Your task to perform on an android device: change notifications settings Image 0: 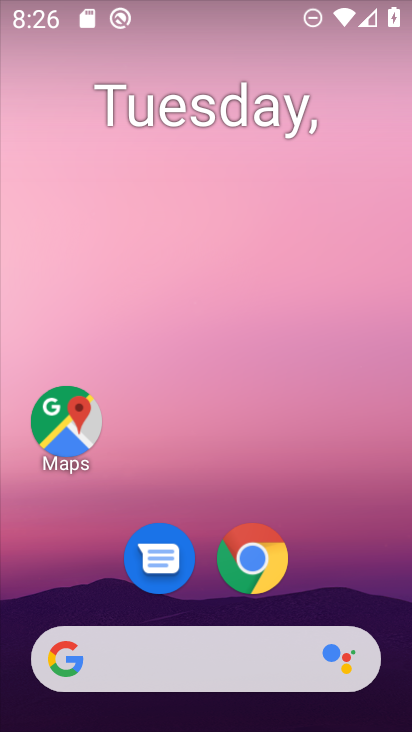
Step 0: drag from (203, 599) to (205, 232)
Your task to perform on an android device: change notifications settings Image 1: 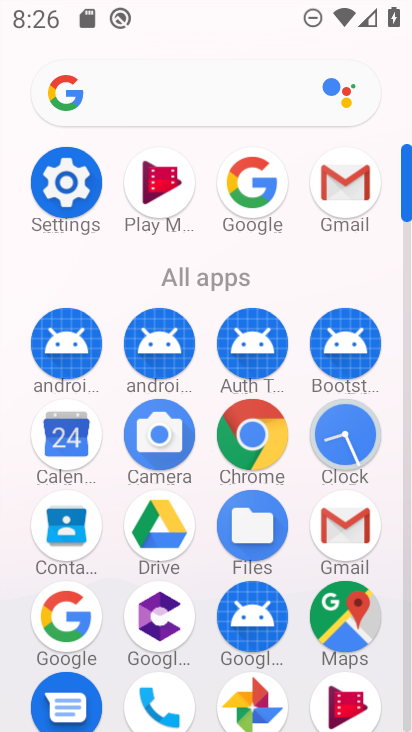
Step 1: click (67, 195)
Your task to perform on an android device: change notifications settings Image 2: 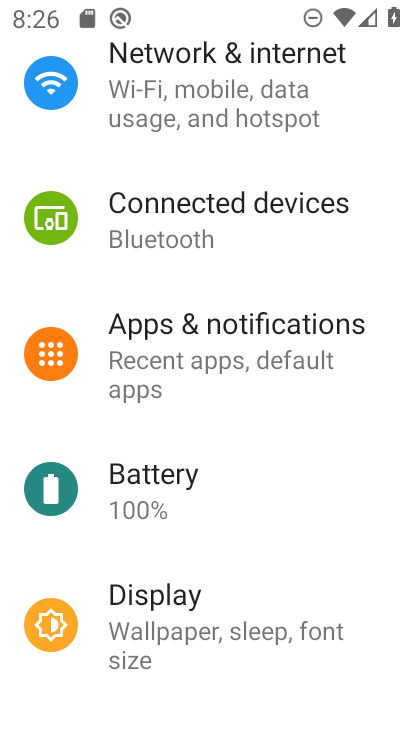
Step 2: click (229, 361)
Your task to perform on an android device: change notifications settings Image 3: 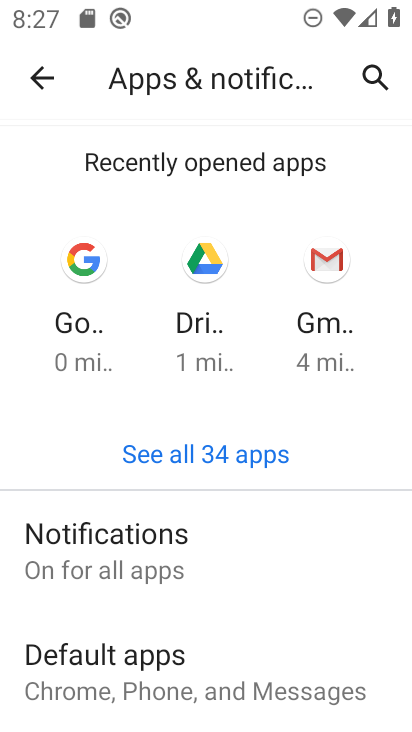
Step 3: drag from (267, 551) to (307, 298)
Your task to perform on an android device: change notifications settings Image 4: 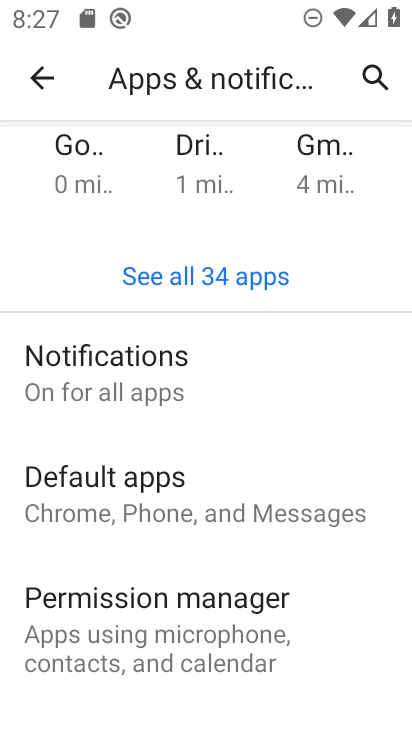
Step 4: click (176, 358)
Your task to perform on an android device: change notifications settings Image 5: 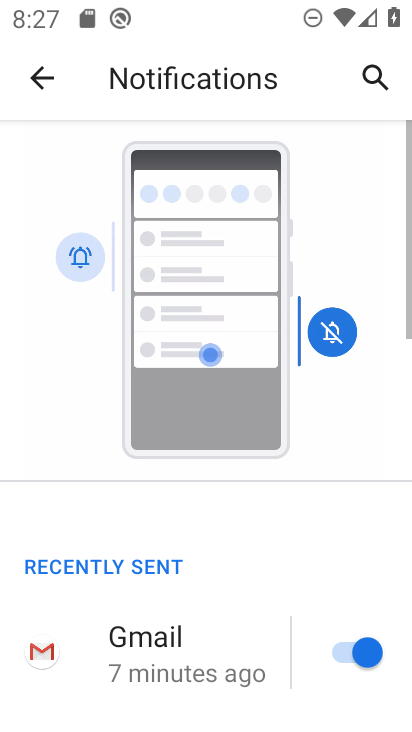
Step 5: drag from (212, 595) to (220, 163)
Your task to perform on an android device: change notifications settings Image 6: 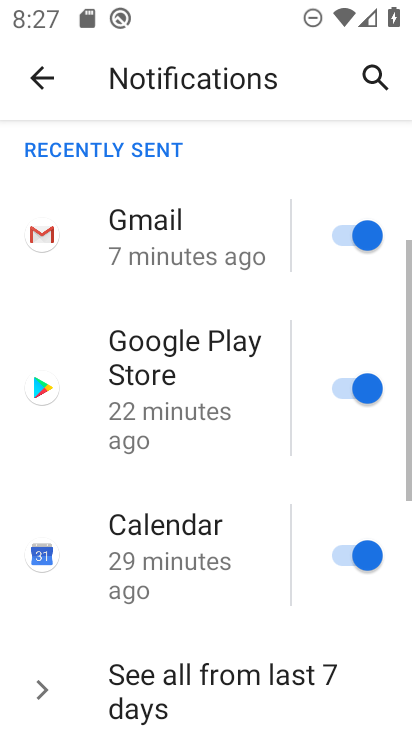
Step 6: drag from (214, 580) to (255, 288)
Your task to perform on an android device: change notifications settings Image 7: 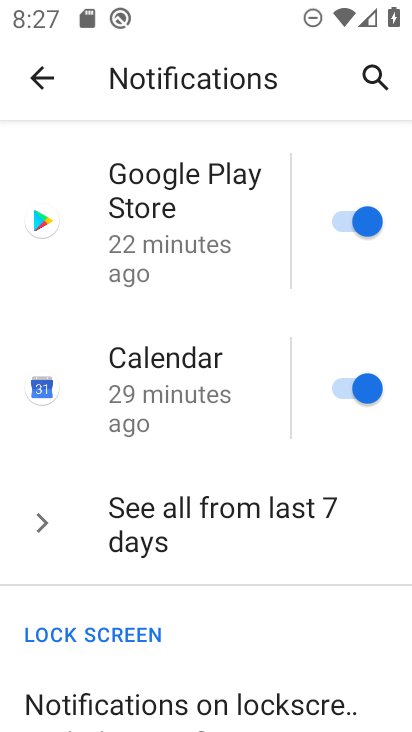
Step 7: drag from (266, 602) to (279, 395)
Your task to perform on an android device: change notifications settings Image 8: 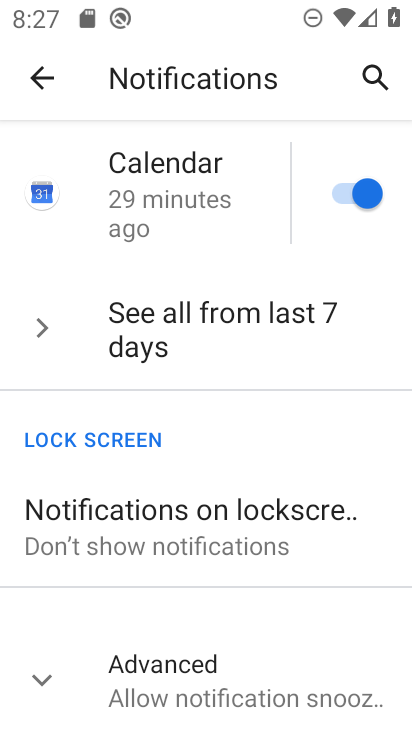
Step 8: drag from (174, 546) to (237, 243)
Your task to perform on an android device: change notifications settings Image 9: 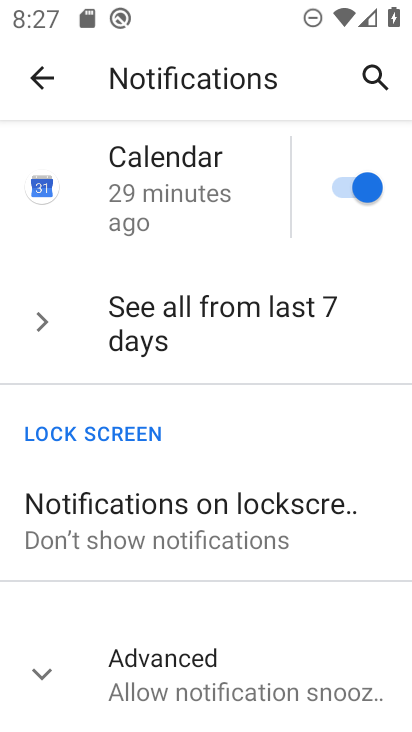
Step 9: click (180, 527)
Your task to perform on an android device: change notifications settings Image 10: 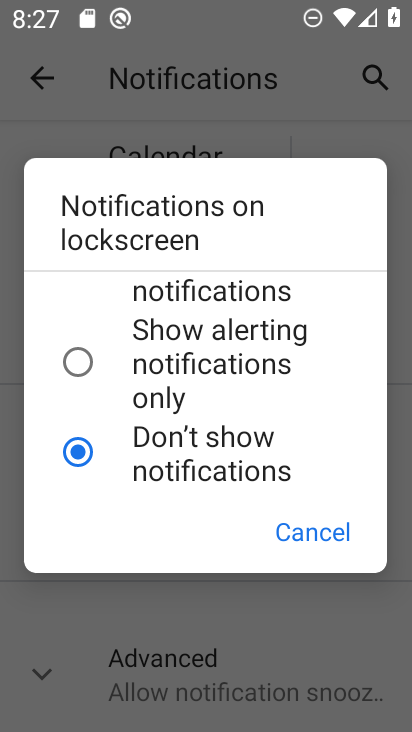
Step 10: drag from (202, 313) to (201, 501)
Your task to perform on an android device: change notifications settings Image 11: 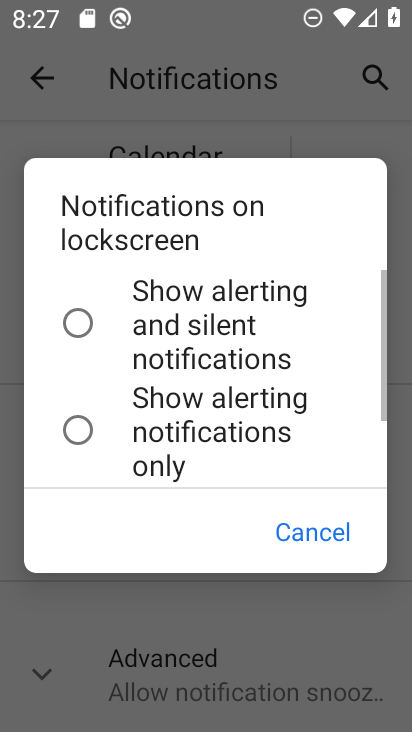
Step 11: click (194, 324)
Your task to perform on an android device: change notifications settings Image 12: 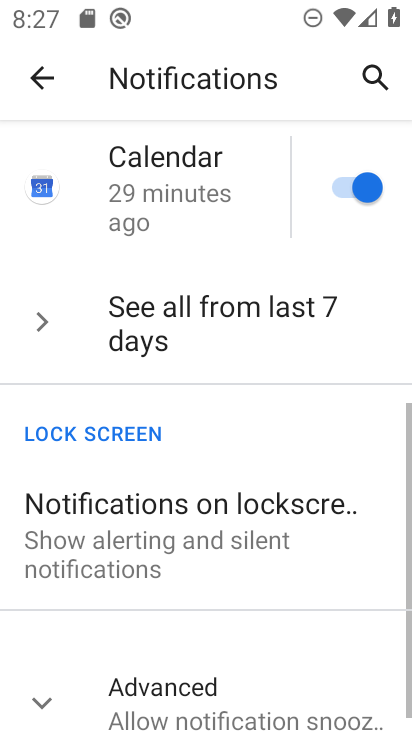
Step 12: task complete